Your task to perform on an android device: Is it going to rain tomorrow? Image 0: 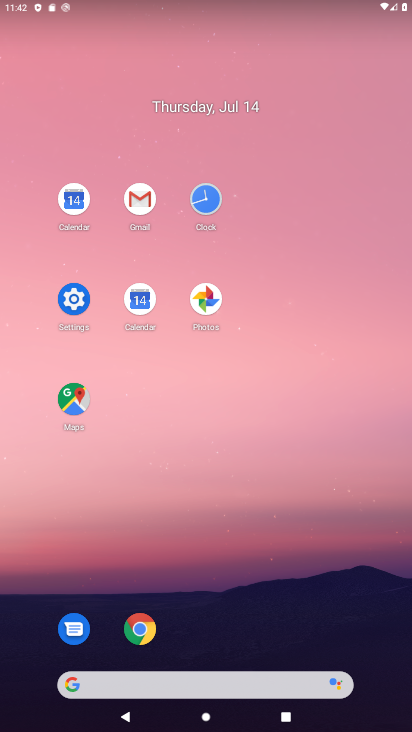
Step 0: drag from (217, 634) to (227, 119)
Your task to perform on an android device: Is it going to rain tomorrow? Image 1: 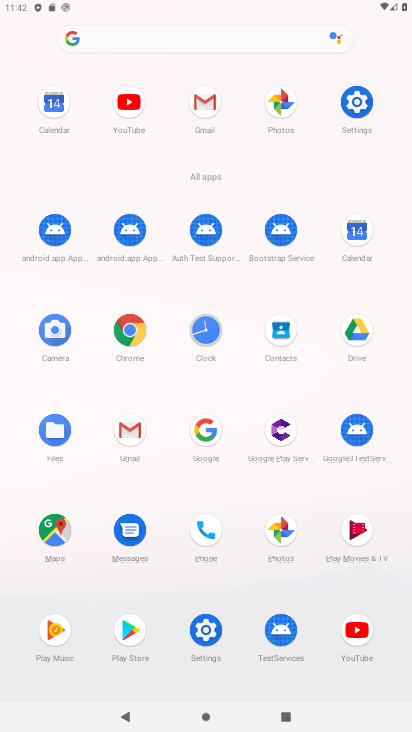
Step 1: drag from (201, 433) to (145, 381)
Your task to perform on an android device: Is it going to rain tomorrow? Image 2: 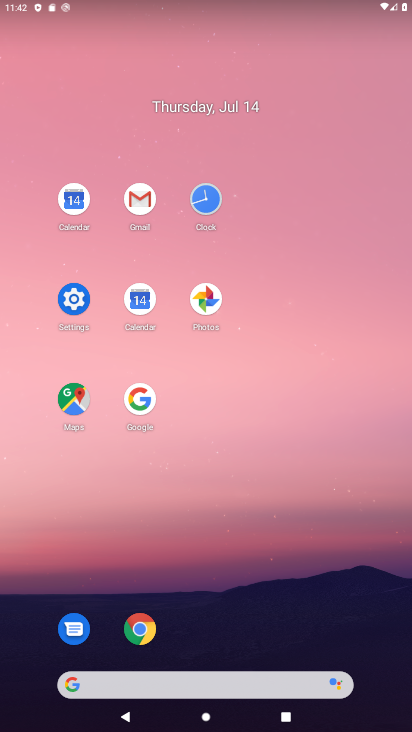
Step 2: click (140, 395)
Your task to perform on an android device: Is it going to rain tomorrow? Image 3: 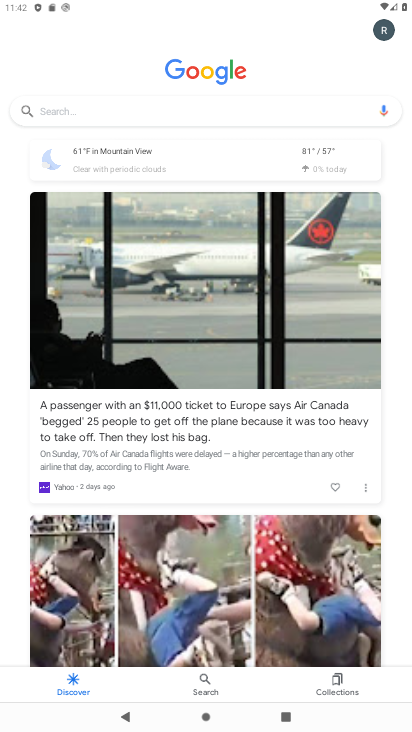
Step 3: click (141, 142)
Your task to perform on an android device: Is it going to rain tomorrow? Image 4: 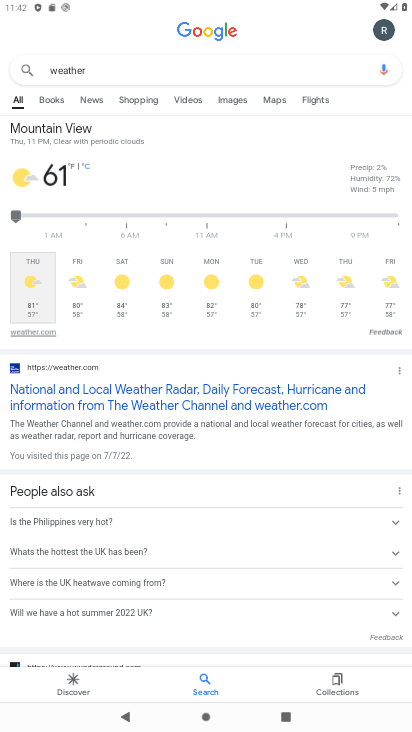
Step 4: click (86, 269)
Your task to perform on an android device: Is it going to rain tomorrow? Image 5: 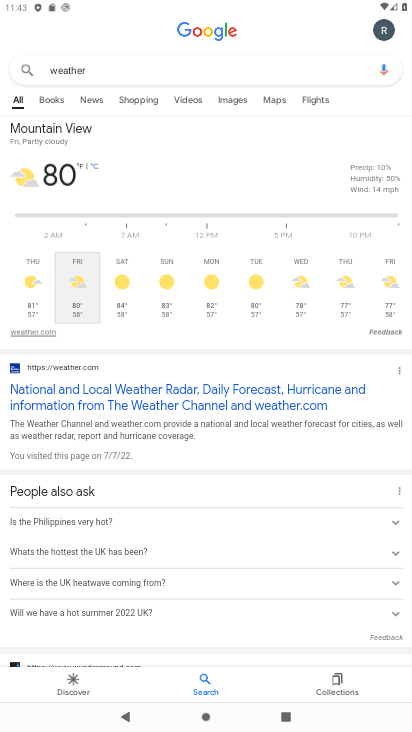
Step 5: task complete